Your task to perform on an android device: open sync settings in chrome Image 0: 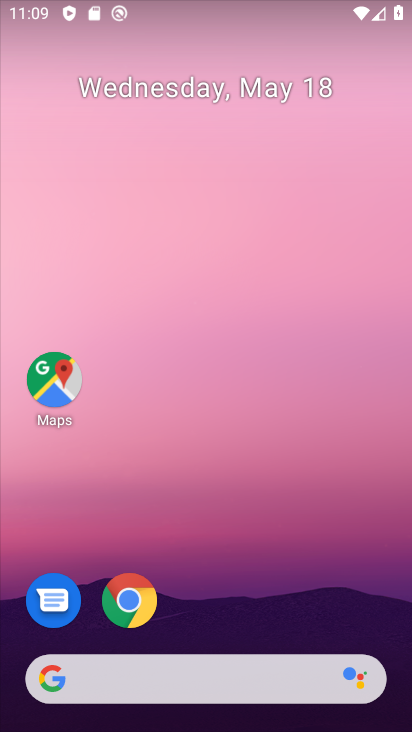
Step 0: drag from (384, 695) to (224, 221)
Your task to perform on an android device: open sync settings in chrome Image 1: 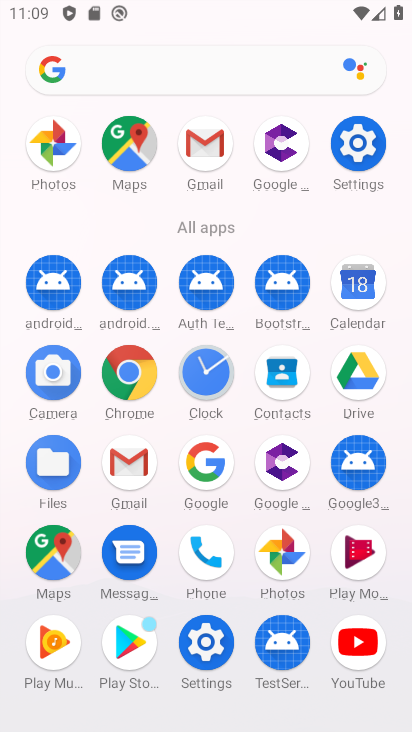
Step 1: click (120, 363)
Your task to perform on an android device: open sync settings in chrome Image 2: 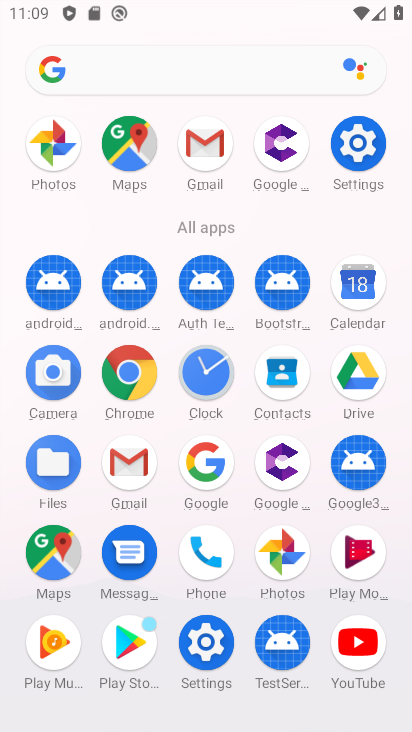
Step 2: click (122, 368)
Your task to perform on an android device: open sync settings in chrome Image 3: 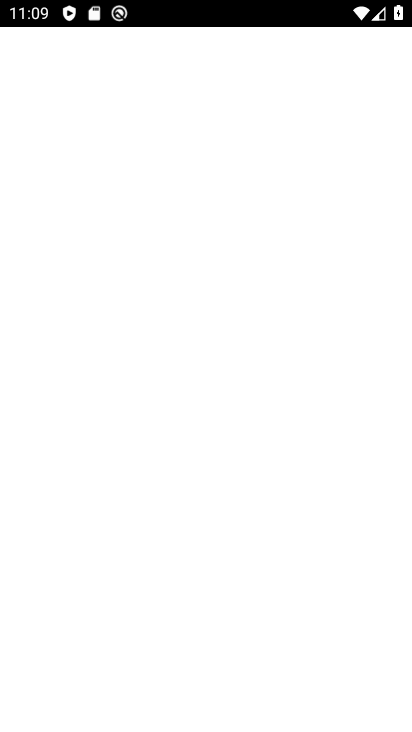
Step 3: drag from (127, 369) to (162, 380)
Your task to perform on an android device: open sync settings in chrome Image 4: 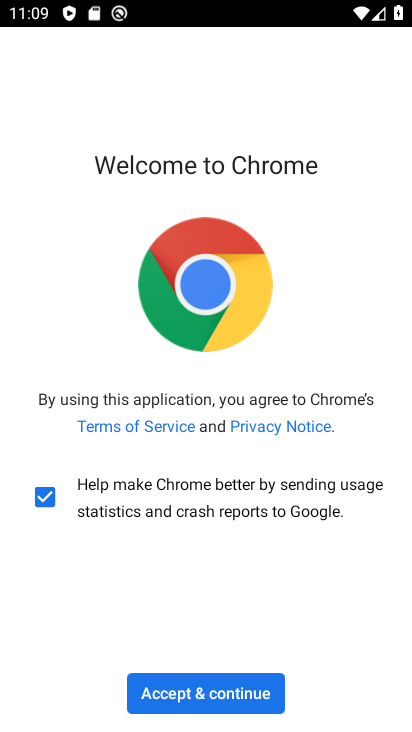
Step 4: click (183, 691)
Your task to perform on an android device: open sync settings in chrome Image 5: 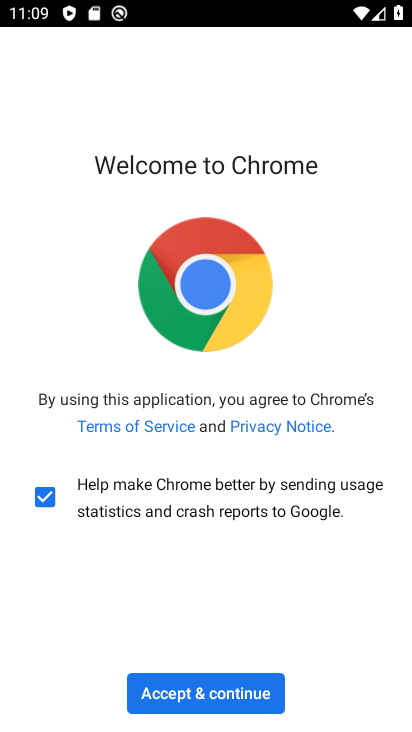
Step 5: click (186, 691)
Your task to perform on an android device: open sync settings in chrome Image 6: 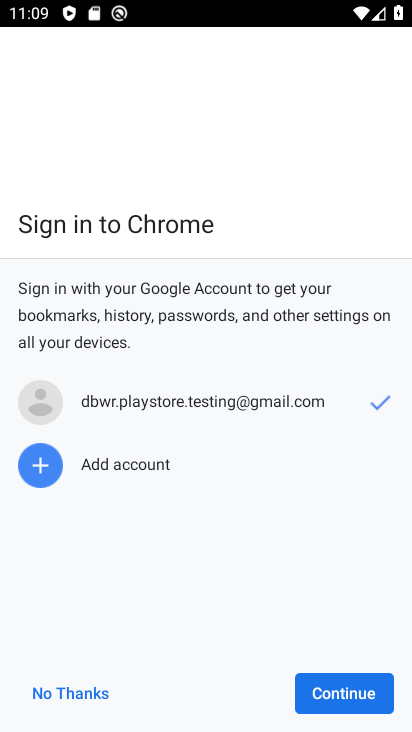
Step 6: click (349, 687)
Your task to perform on an android device: open sync settings in chrome Image 7: 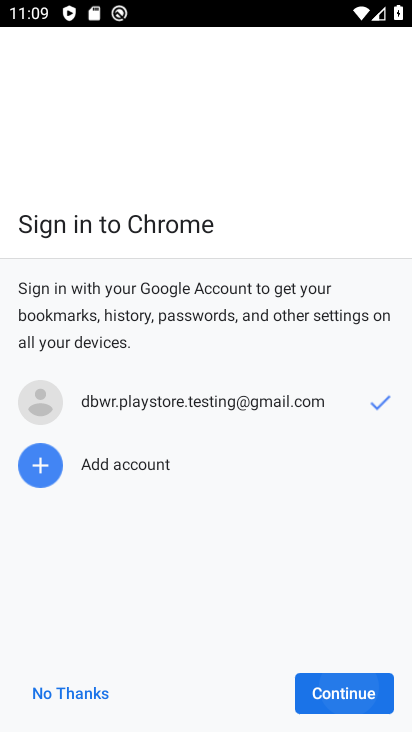
Step 7: click (349, 687)
Your task to perform on an android device: open sync settings in chrome Image 8: 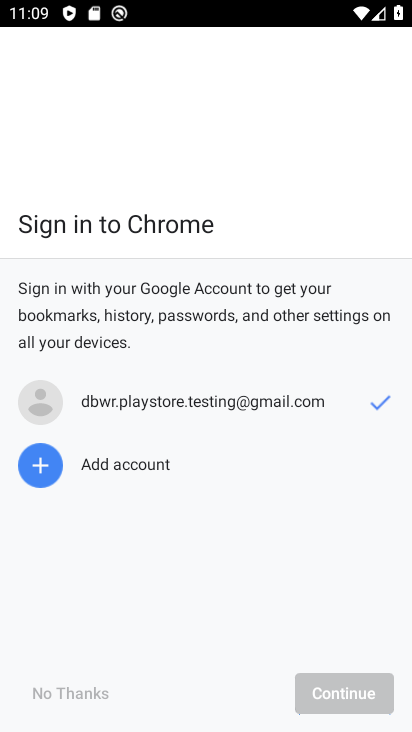
Step 8: click (349, 687)
Your task to perform on an android device: open sync settings in chrome Image 9: 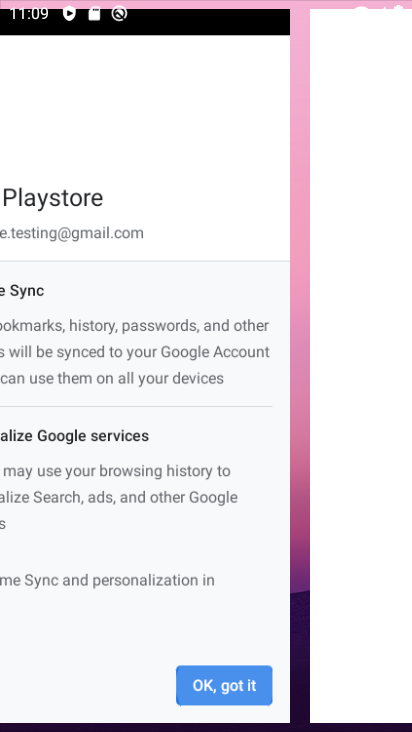
Step 9: click (350, 687)
Your task to perform on an android device: open sync settings in chrome Image 10: 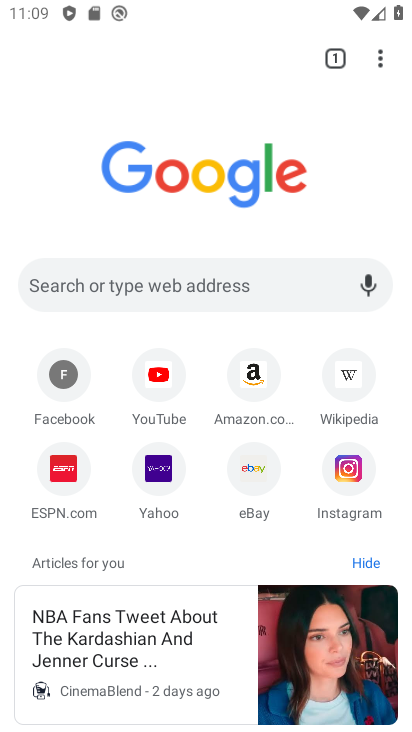
Step 10: drag from (374, 63) to (175, 510)
Your task to perform on an android device: open sync settings in chrome Image 11: 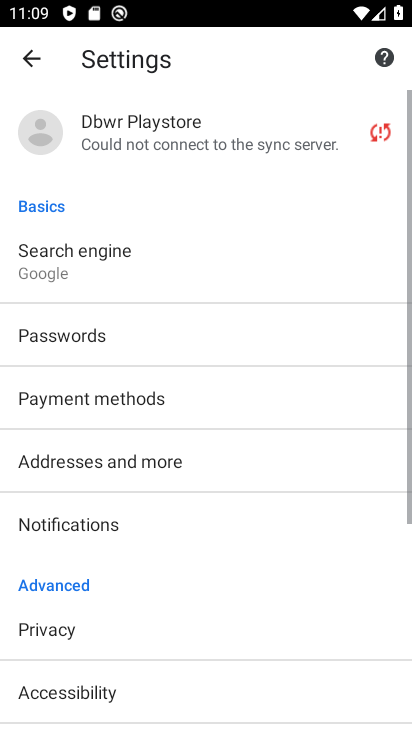
Step 11: drag from (174, 461) to (145, 1)
Your task to perform on an android device: open sync settings in chrome Image 12: 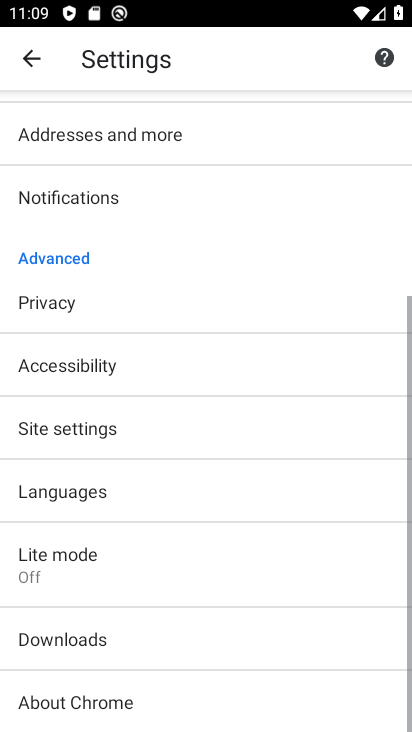
Step 12: drag from (139, 414) to (192, 30)
Your task to perform on an android device: open sync settings in chrome Image 13: 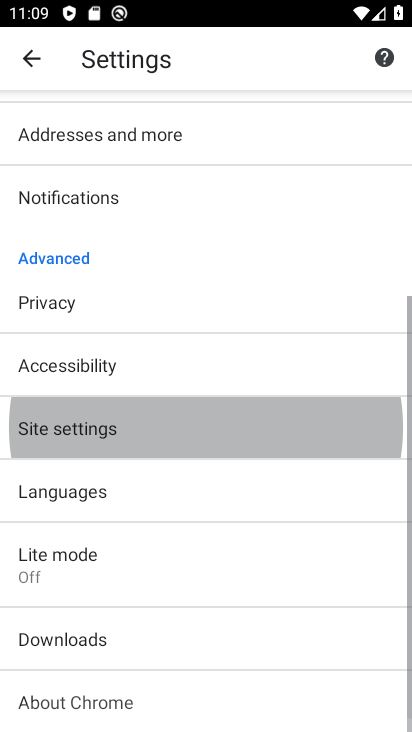
Step 13: drag from (154, 494) to (139, 15)
Your task to perform on an android device: open sync settings in chrome Image 14: 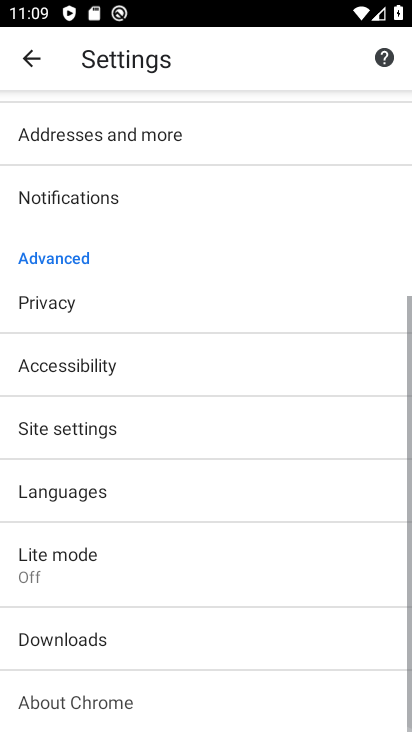
Step 14: drag from (165, 503) to (150, 62)
Your task to perform on an android device: open sync settings in chrome Image 15: 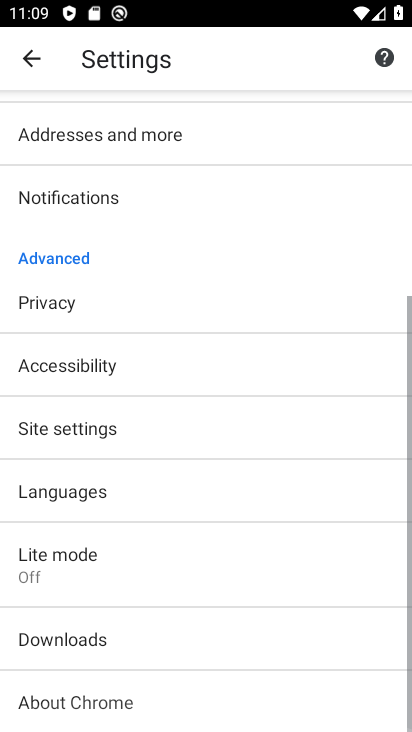
Step 15: drag from (210, 638) to (185, 122)
Your task to perform on an android device: open sync settings in chrome Image 16: 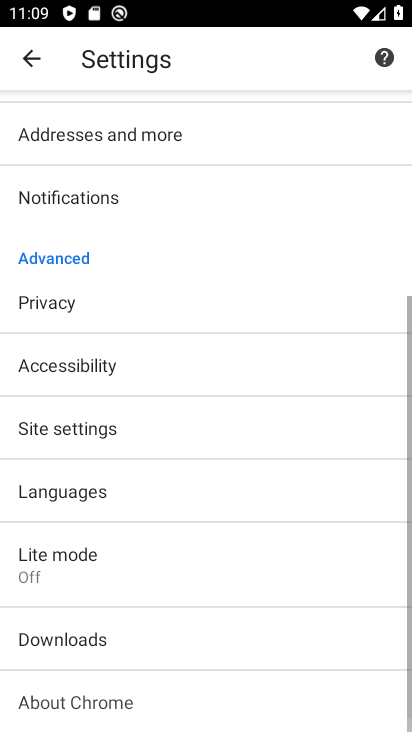
Step 16: drag from (146, 575) to (107, 104)
Your task to perform on an android device: open sync settings in chrome Image 17: 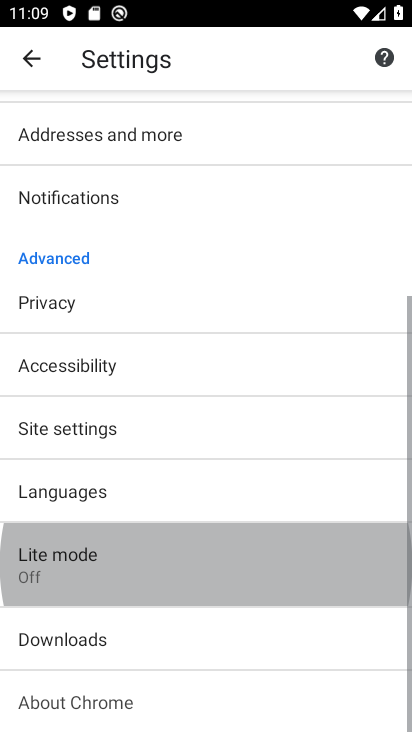
Step 17: drag from (121, 374) to (153, 4)
Your task to perform on an android device: open sync settings in chrome Image 18: 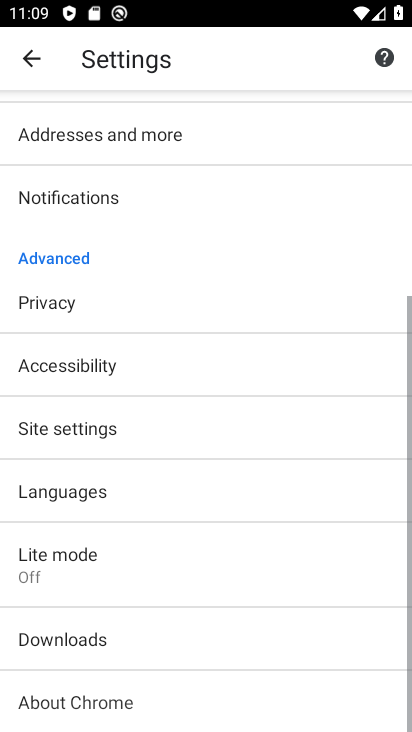
Step 18: drag from (166, 143) to (131, 94)
Your task to perform on an android device: open sync settings in chrome Image 19: 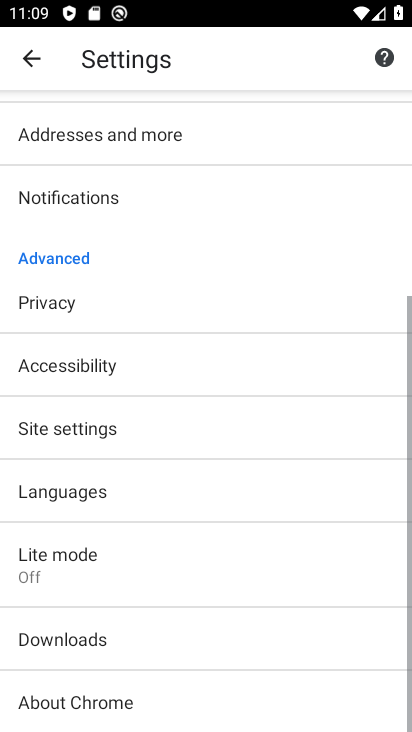
Step 19: drag from (170, 538) to (88, 118)
Your task to perform on an android device: open sync settings in chrome Image 20: 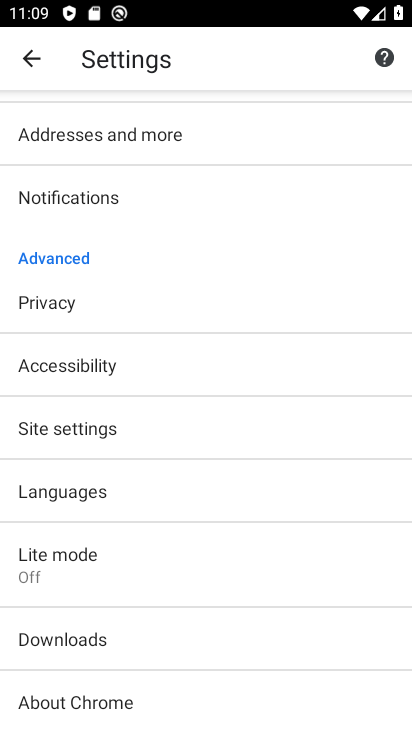
Step 20: click (52, 435)
Your task to perform on an android device: open sync settings in chrome Image 21: 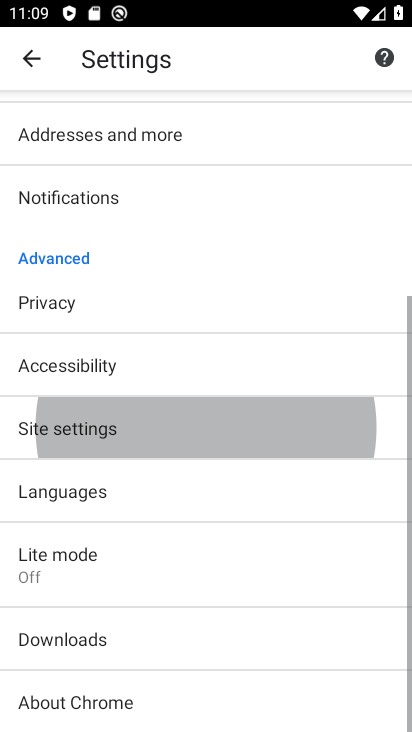
Step 21: click (53, 434)
Your task to perform on an android device: open sync settings in chrome Image 22: 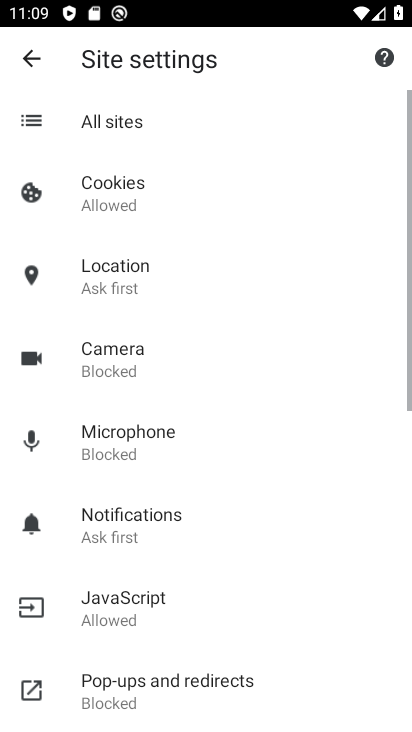
Step 22: click (56, 432)
Your task to perform on an android device: open sync settings in chrome Image 23: 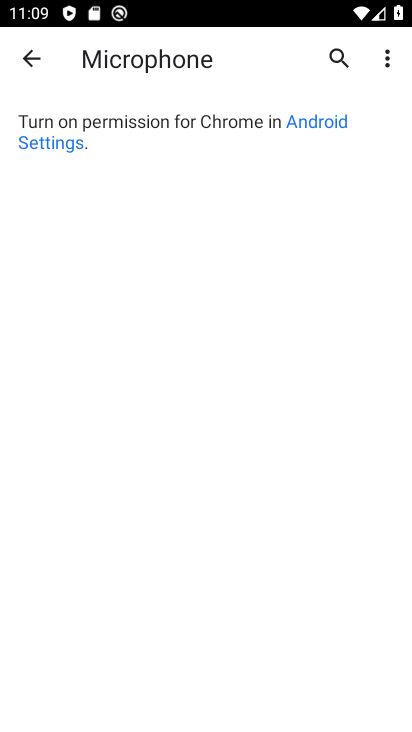
Step 23: click (36, 58)
Your task to perform on an android device: open sync settings in chrome Image 24: 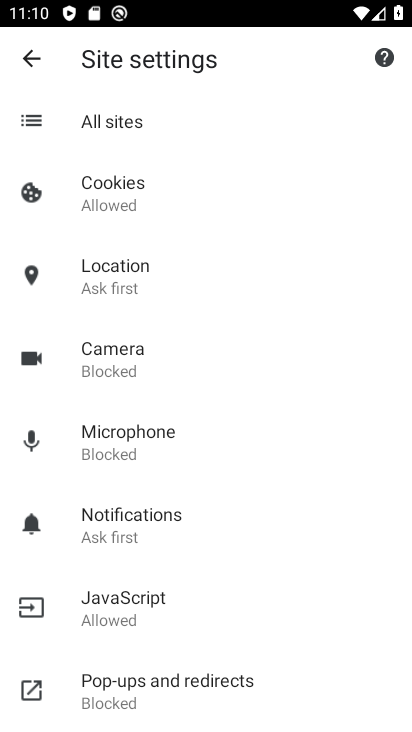
Step 24: drag from (139, 533) to (78, 133)
Your task to perform on an android device: open sync settings in chrome Image 25: 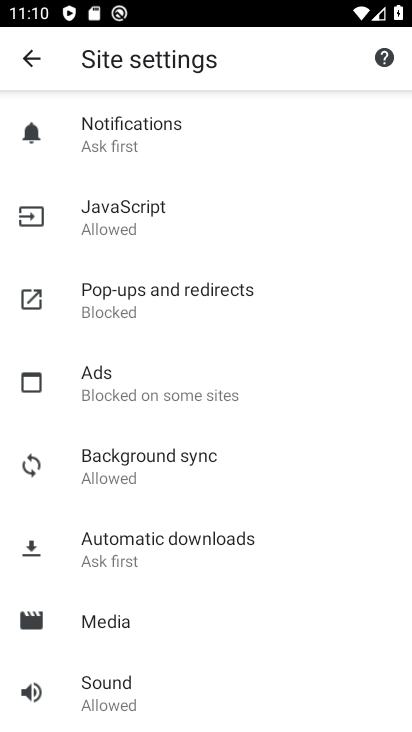
Step 25: click (101, 465)
Your task to perform on an android device: open sync settings in chrome Image 26: 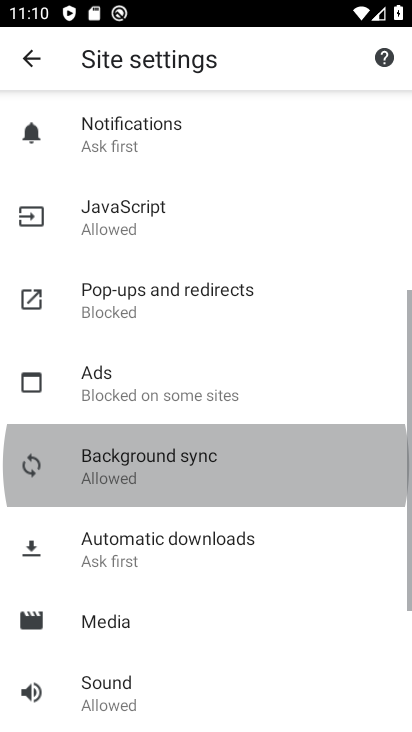
Step 26: click (102, 464)
Your task to perform on an android device: open sync settings in chrome Image 27: 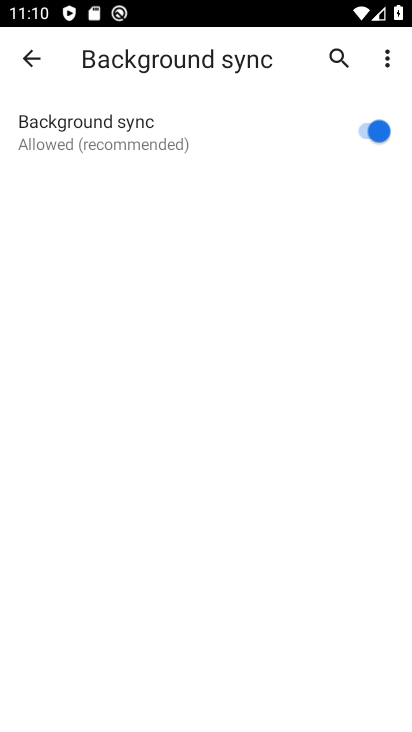
Step 27: click (375, 135)
Your task to perform on an android device: open sync settings in chrome Image 28: 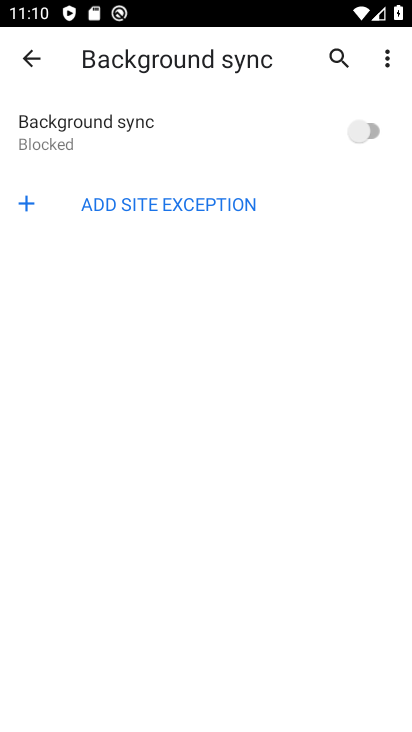
Step 28: click (359, 124)
Your task to perform on an android device: open sync settings in chrome Image 29: 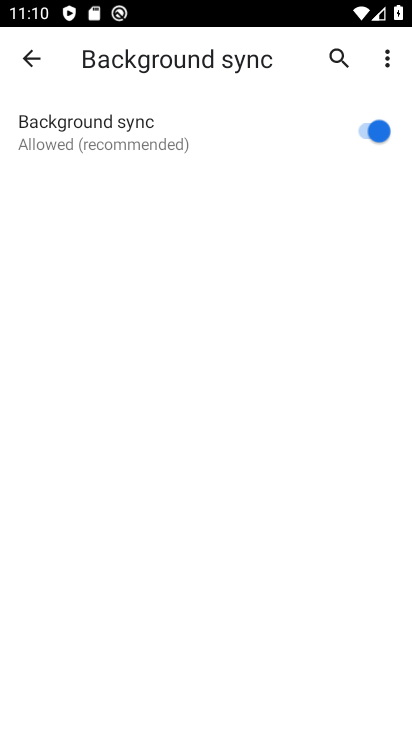
Step 29: task complete